Your task to perform on an android device: remove spam from my inbox in the gmail app Image 0: 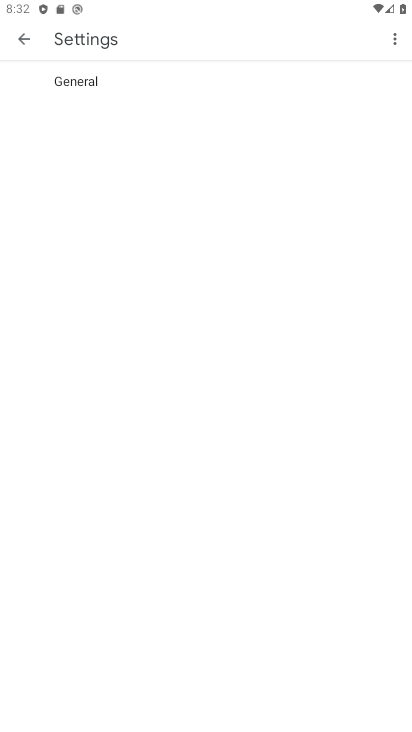
Step 0: press back button
Your task to perform on an android device: remove spam from my inbox in the gmail app Image 1: 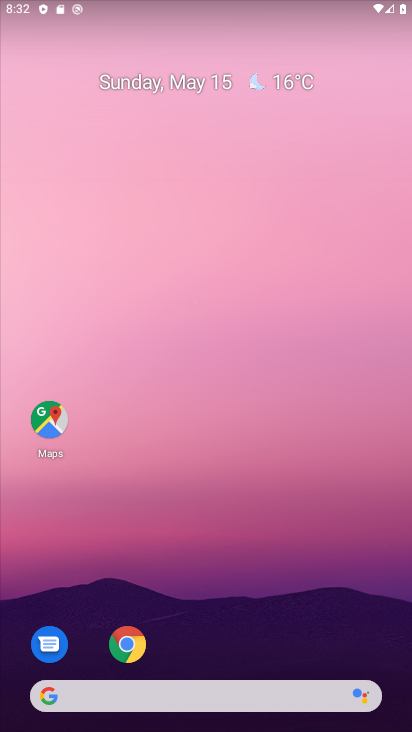
Step 1: drag from (269, 594) to (313, 54)
Your task to perform on an android device: remove spam from my inbox in the gmail app Image 2: 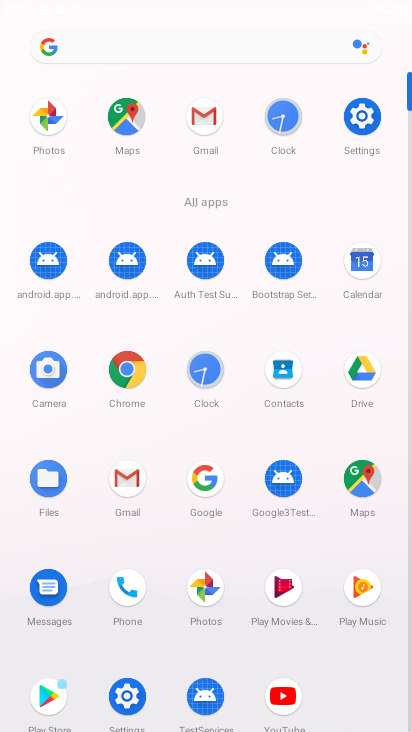
Step 2: click (132, 470)
Your task to perform on an android device: remove spam from my inbox in the gmail app Image 3: 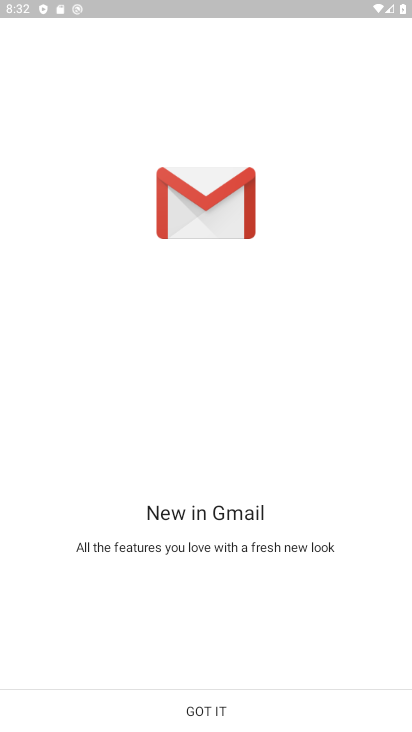
Step 3: click (191, 711)
Your task to perform on an android device: remove spam from my inbox in the gmail app Image 4: 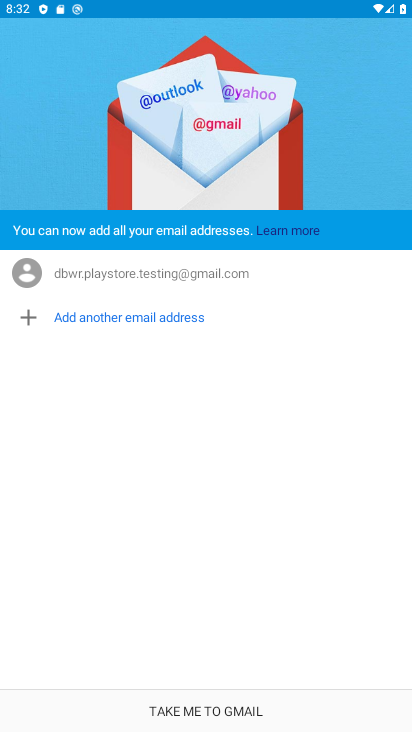
Step 4: click (193, 711)
Your task to perform on an android device: remove spam from my inbox in the gmail app Image 5: 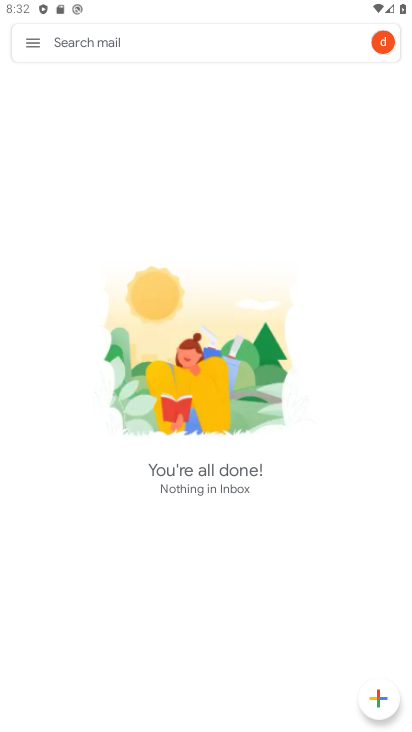
Step 5: click (36, 41)
Your task to perform on an android device: remove spam from my inbox in the gmail app Image 6: 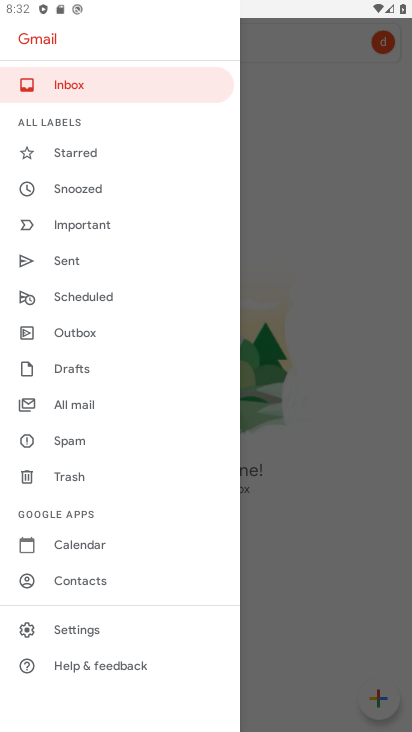
Step 6: click (79, 447)
Your task to perform on an android device: remove spam from my inbox in the gmail app Image 7: 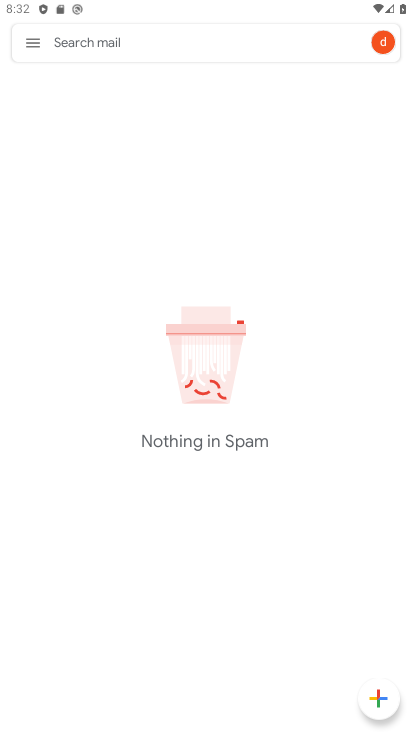
Step 7: task complete